Your task to perform on an android device: Search for Mexican restaurants on Maps Image 0: 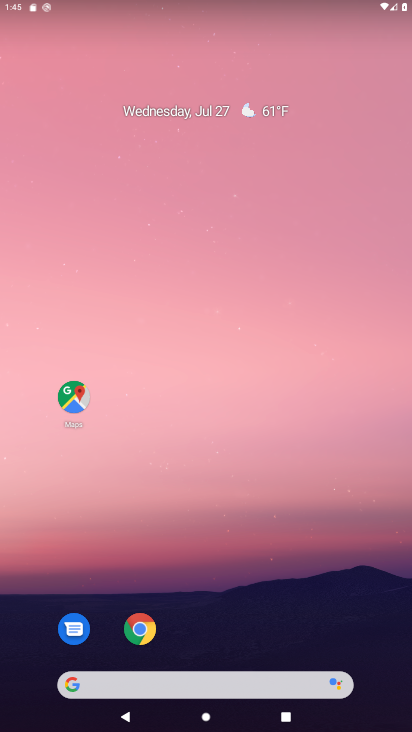
Step 0: click (77, 415)
Your task to perform on an android device: Search for Mexican restaurants on Maps Image 1: 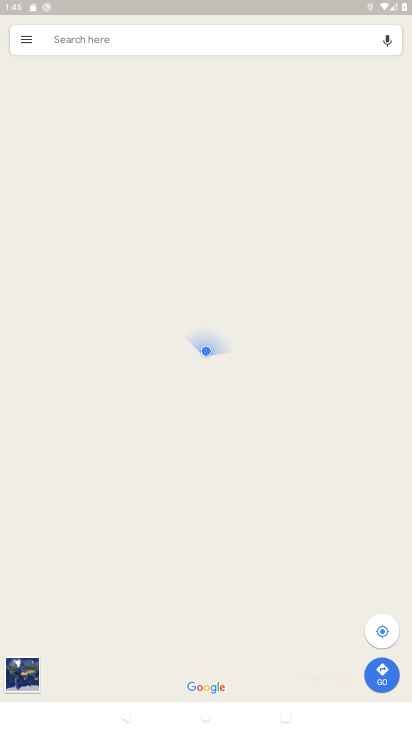
Step 1: click (138, 40)
Your task to perform on an android device: Search for Mexican restaurants on Maps Image 2: 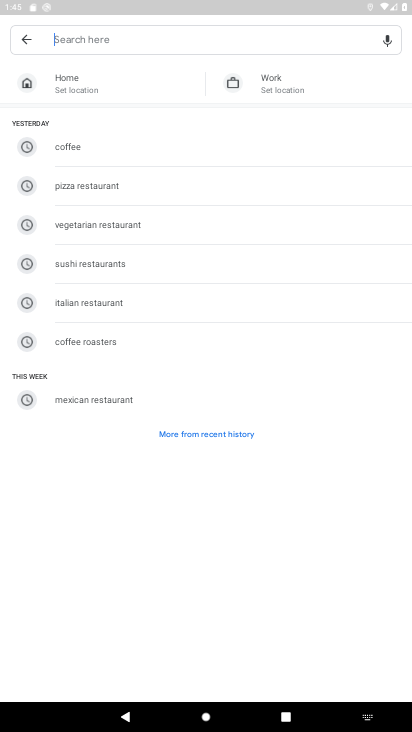
Step 2: type "mexican restaurants"
Your task to perform on an android device: Search for Mexican restaurants on Maps Image 3: 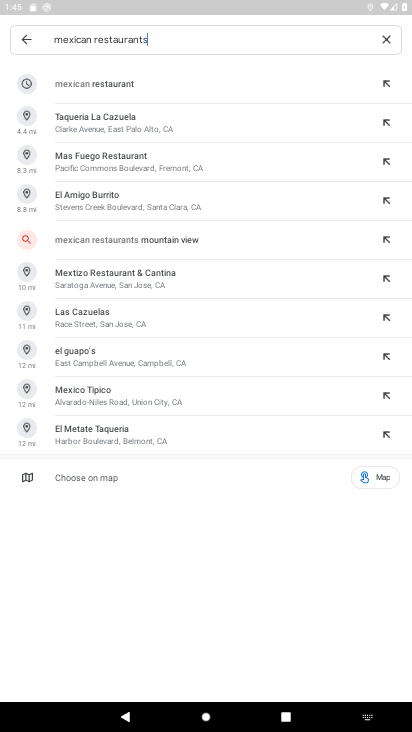
Step 3: click (128, 83)
Your task to perform on an android device: Search for Mexican restaurants on Maps Image 4: 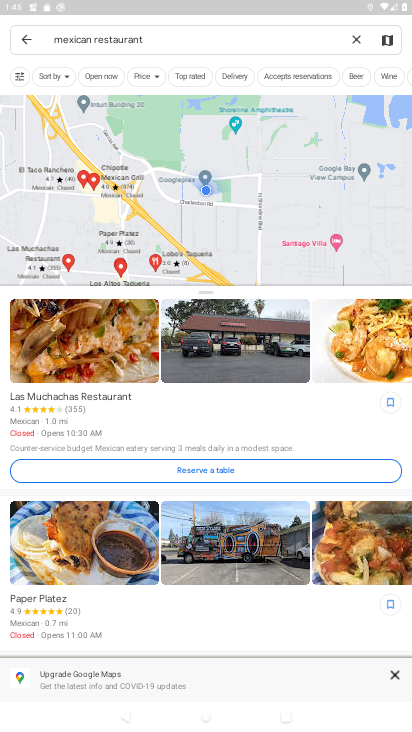
Step 4: task complete